Your task to perform on an android device: change the clock display to analog Image 0: 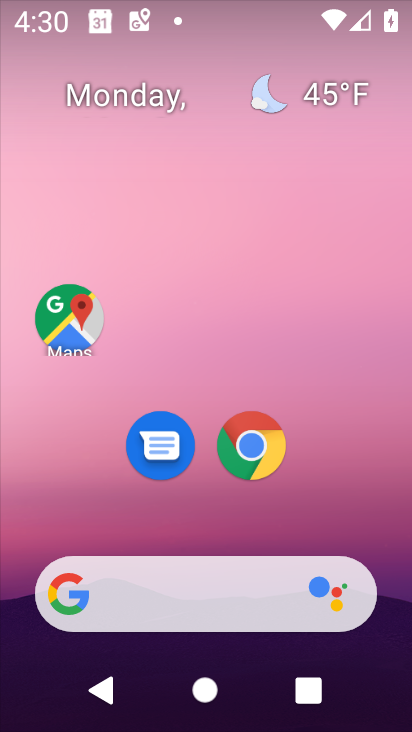
Step 0: drag from (279, 566) to (269, 86)
Your task to perform on an android device: change the clock display to analog Image 1: 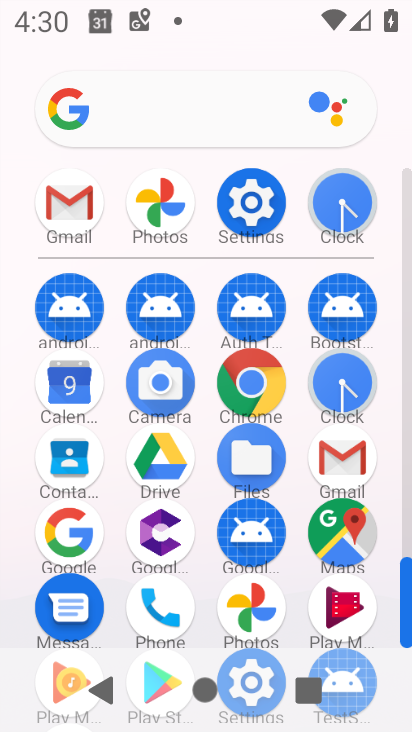
Step 1: click (351, 387)
Your task to perform on an android device: change the clock display to analog Image 2: 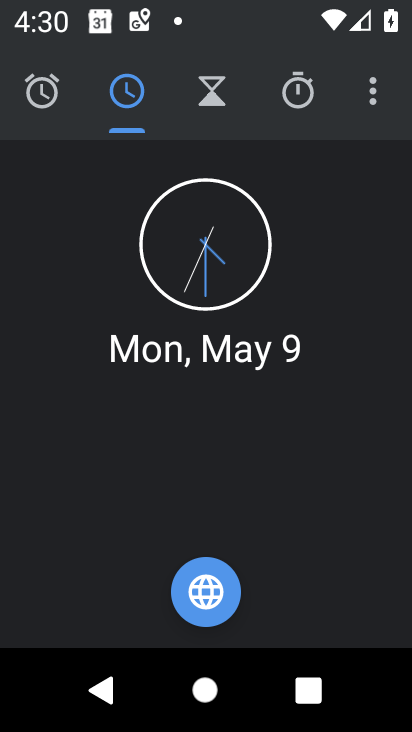
Step 2: click (361, 91)
Your task to perform on an android device: change the clock display to analog Image 3: 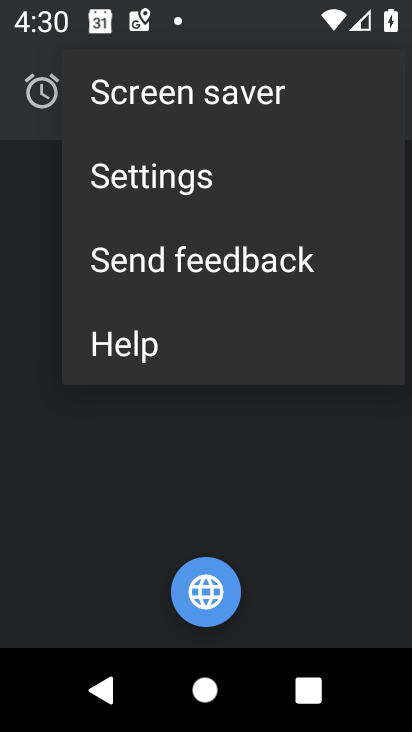
Step 3: click (224, 163)
Your task to perform on an android device: change the clock display to analog Image 4: 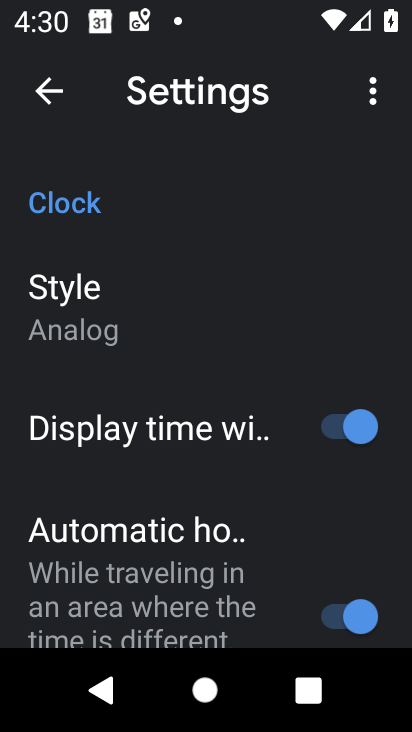
Step 4: task complete